Your task to perform on an android device: Open Wikipedia Image 0: 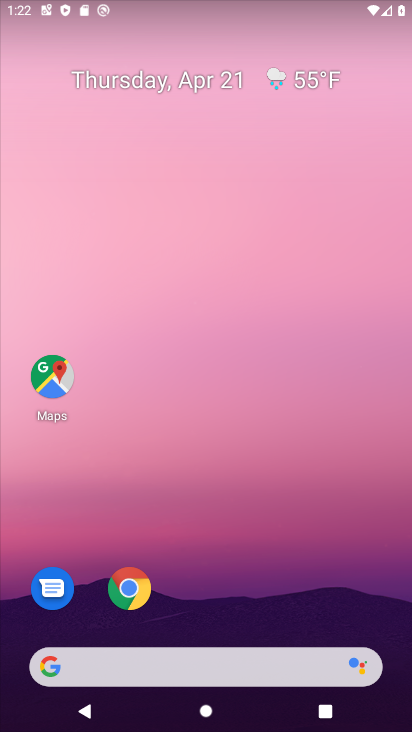
Step 0: click (131, 595)
Your task to perform on an android device: Open Wikipedia Image 1: 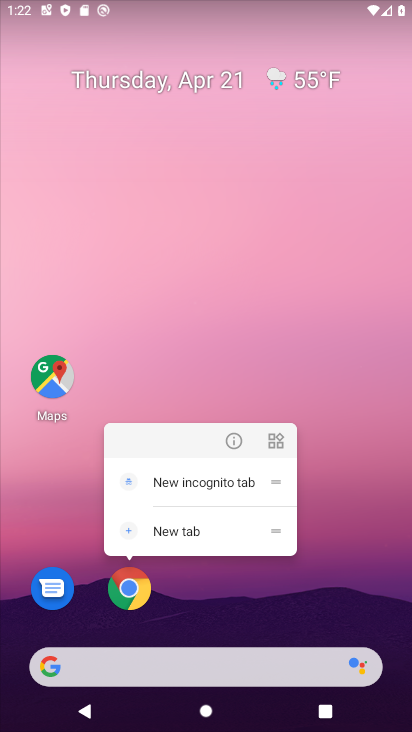
Step 1: click (127, 591)
Your task to perform on an android device: Open Wikipedia Image 2: 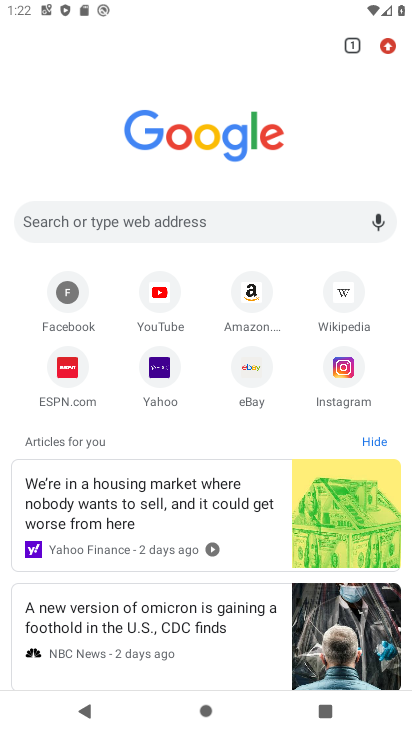
Step 2: click (334, 309)
Your task to perform on an android device: Open Wikipedia Image 3: 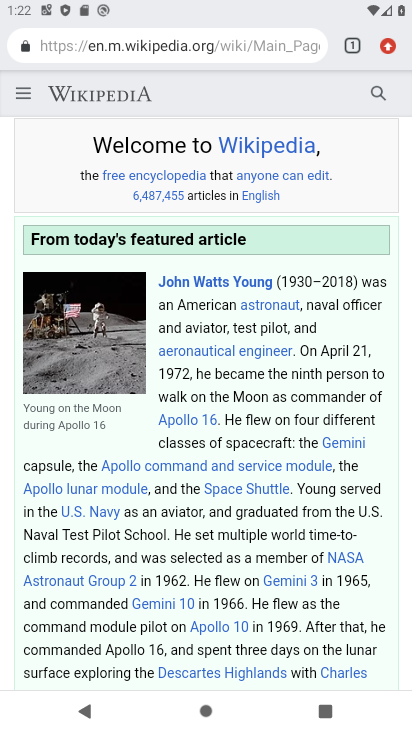
Step 3: task complete